Your task to perform on an android device: turn on improve location accuracy Image 0: 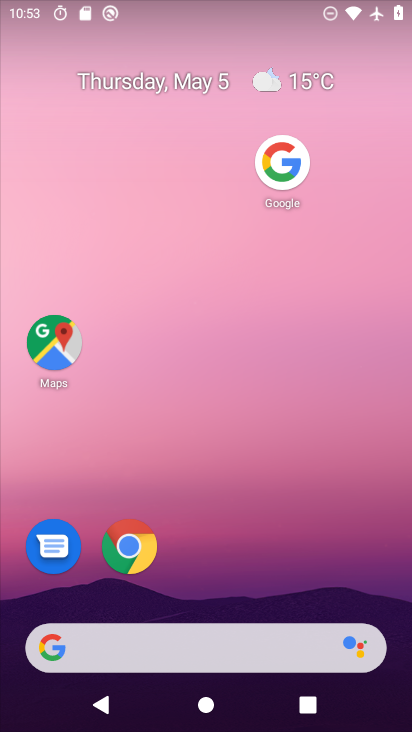
Step 0: drag from (181, 646) to (267, 71)
Your task to perform on an android device: turn on improve location accuracy Image 1: 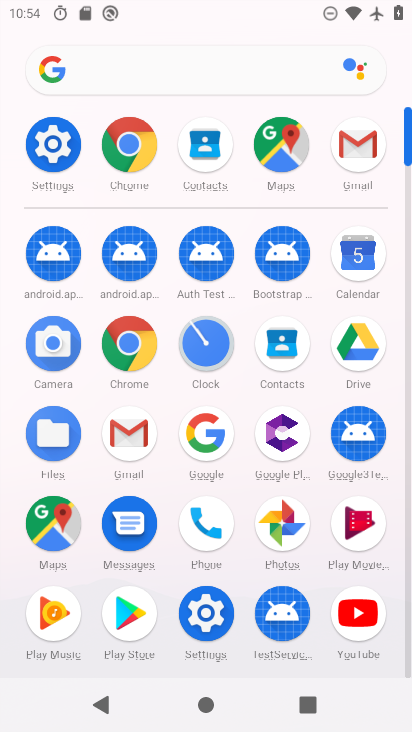
Step 1: click (55, 146)
Your task to perform on an android device: turn on improve location accuracy Image 2: 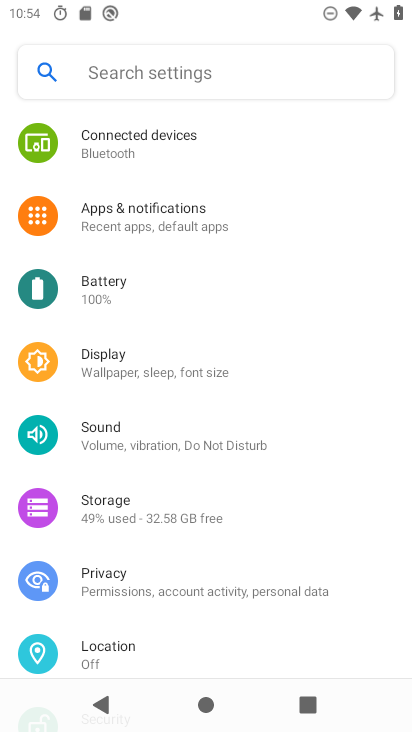
Step 2: drag from (138, 584) to (319, 148)
Your task to perform on an android device: turn on improve location accuracy Image 3: 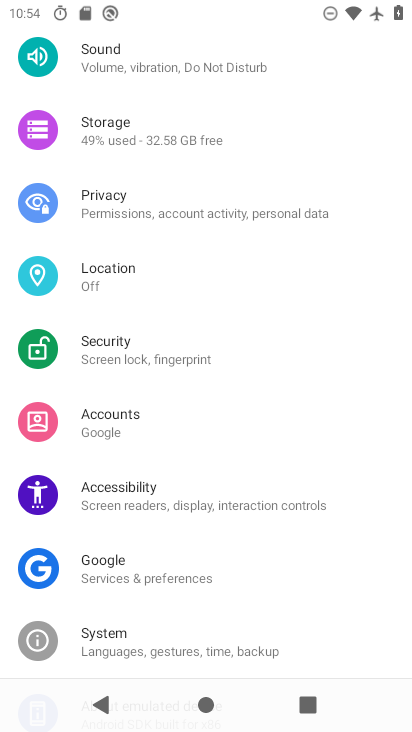
Step 3: click (140, 280)
Your task to perform on an android device: turn on improve location accuracy Image 4: 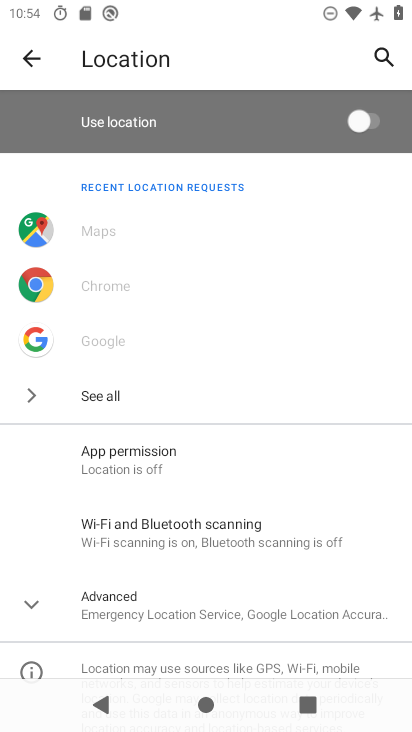
Step 4: drag from (196, 568) to (325, 304)
Your task to perform on an android device: turn on improve location accuracy Image 5: 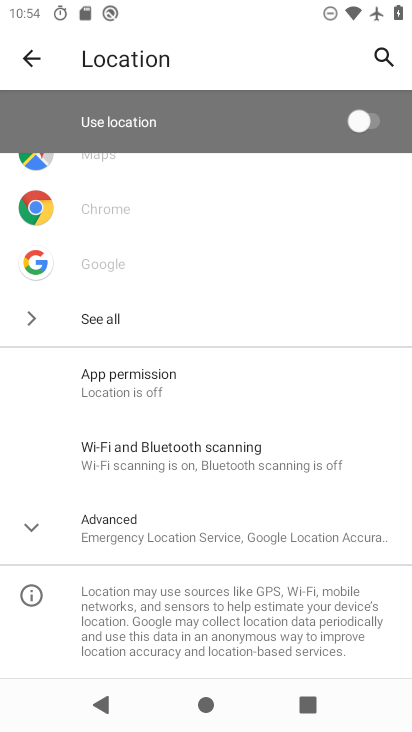
Step 5: click (125, 517)
Your task to perform on an android device: turn on improve location accuracy Image 6: 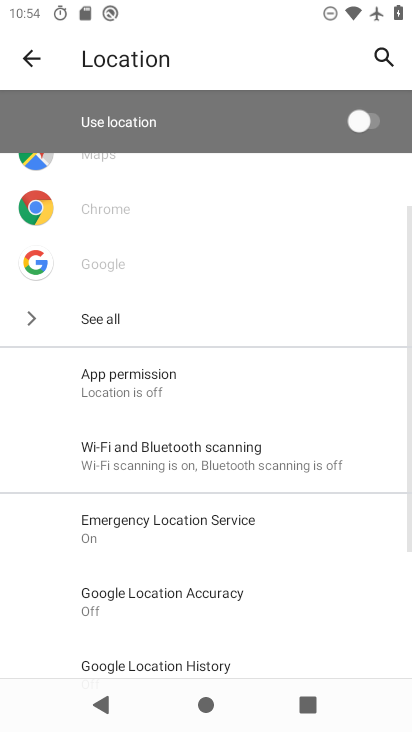
Step 6: click (183, 597)
Your task to perform on an android device: turn on improve location accuracy Image 7: 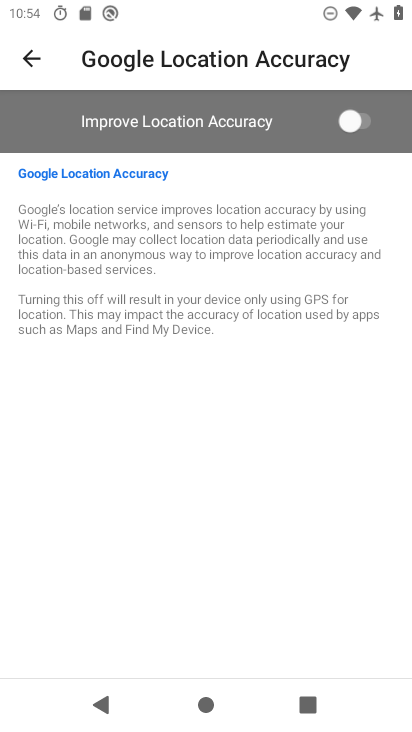
Step 7: click (367, 117)
Your task to perform on an android device: turn on improve location accuracy Image 8: 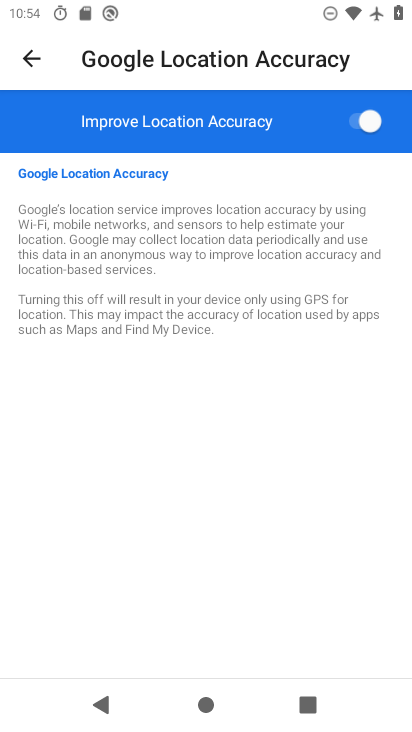
Step 8: task complete